Your task to perform on an android device: Open CNN.com Image 0: 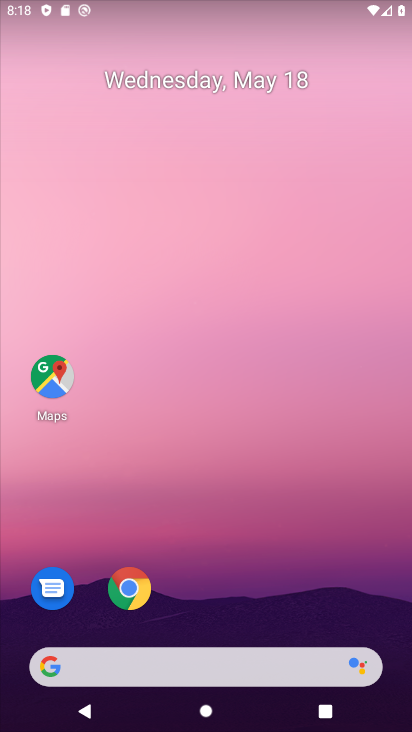
Step 0: drag from (212, 539) to (288, 181)
Your task to perform on an android device: Open CNN.com Image 1: 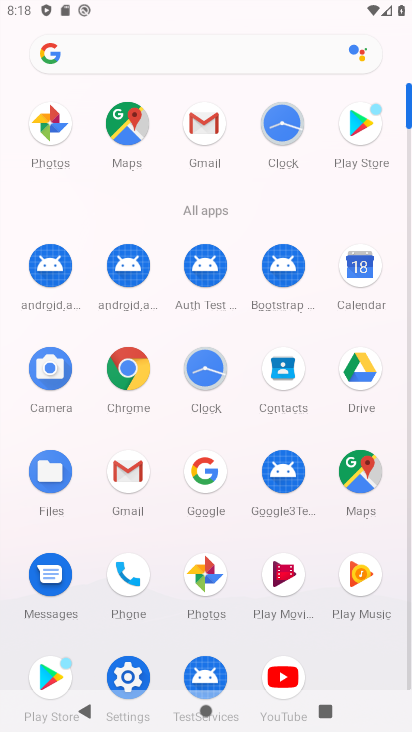
Step 1: click (108, 370)
Your task to perform on an android device: Open CNN.com Image 2: 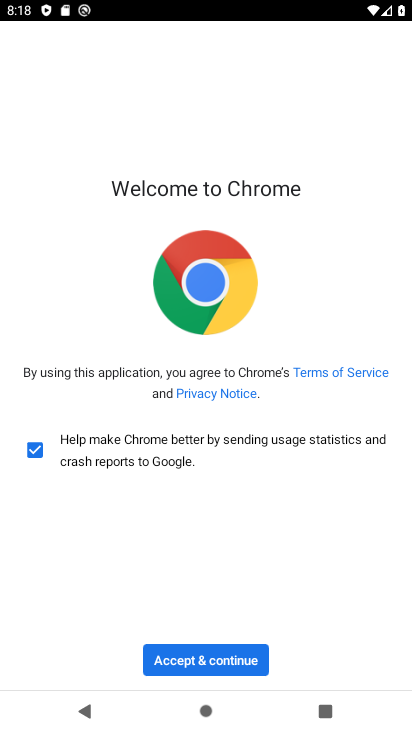
Step 2: click (210, 663)
Your task to perform on an android device: Open CNN.com Image 3: 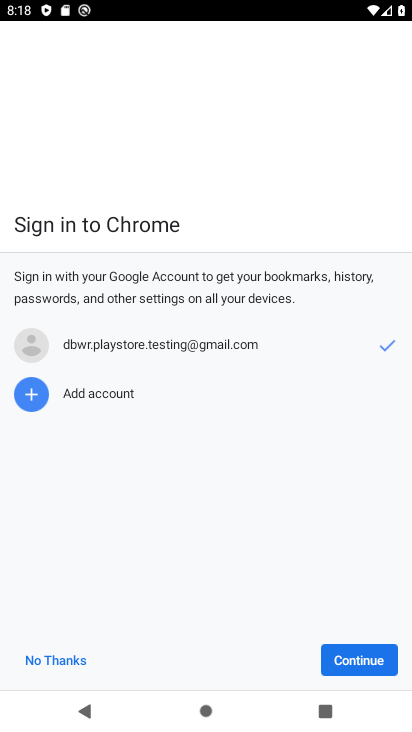
Step 3: click (339, 652)
Your task to perform on an android device: Open CNN.com Image 4: 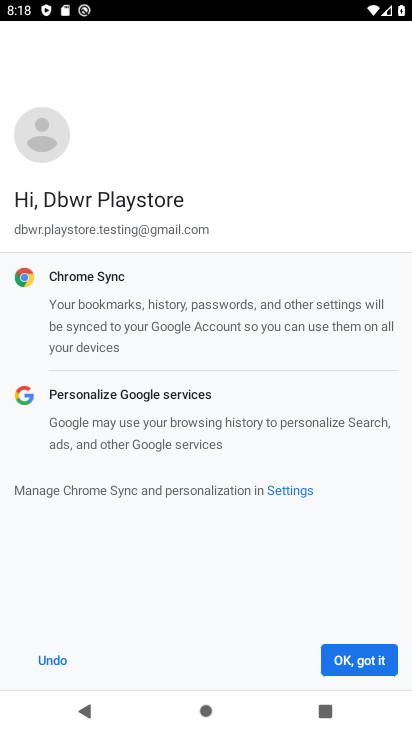
Step 4: click (341, 651)
Your task to perform on an android device: Open CNN.com Image 5: 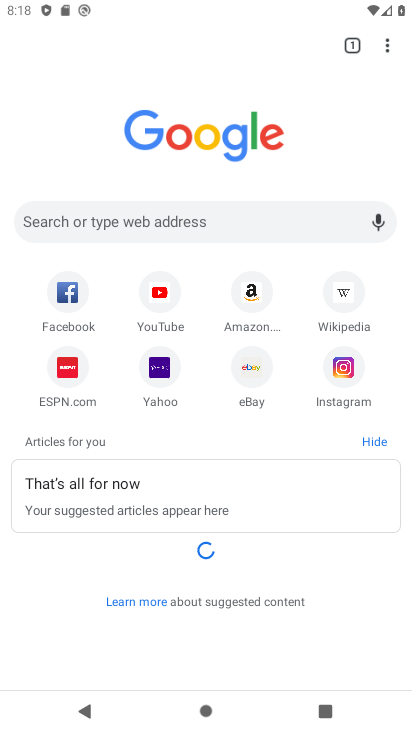
Step 5: click (191, 228)
Your task to perform on an android device: Open CNN.com Image 6: 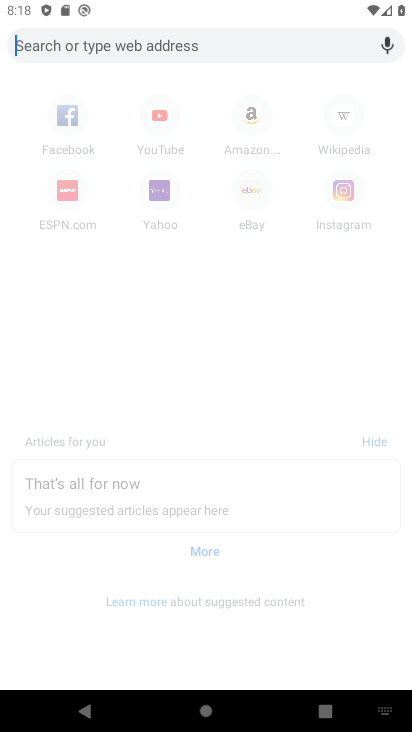
Step 6: type "cnn.com"
Your task to perform on an android device: Open CNN.com Image 7: 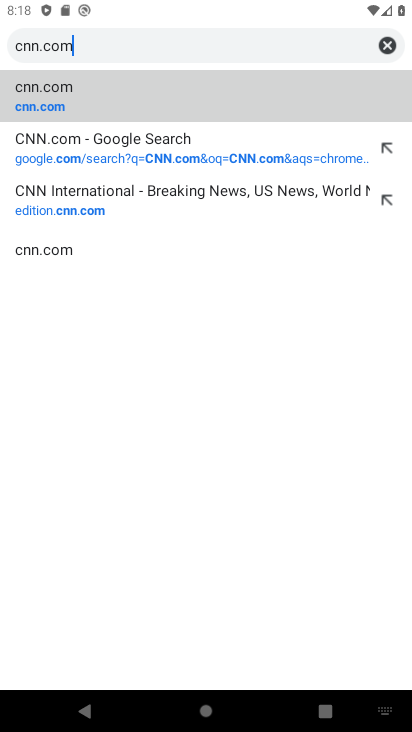
Step 7: click (102, 100)
Your task to perform on an android device: Open CNN.com Image 8: 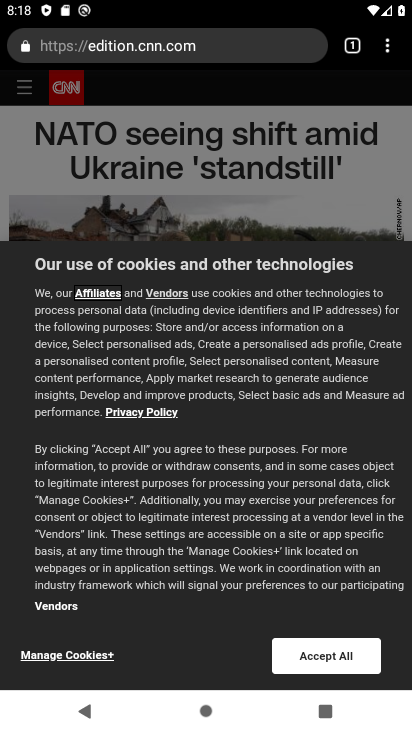
Step 8: click (363, 645)
Your task to perform on an android device: Open CNN.com Image 9: 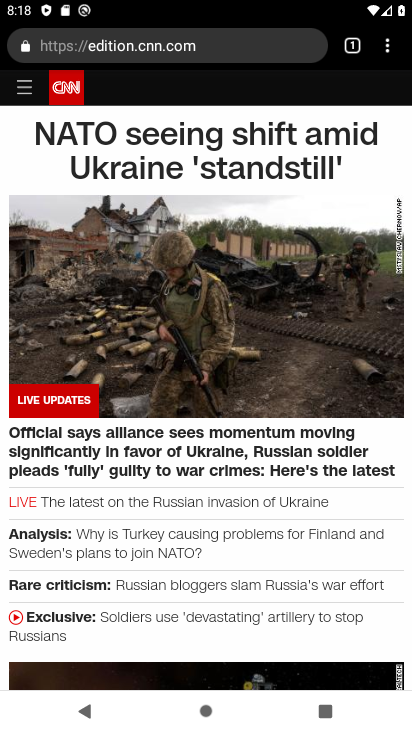
Step 9: task complete